Your task to perform on an android device: show emergency info Image 0: 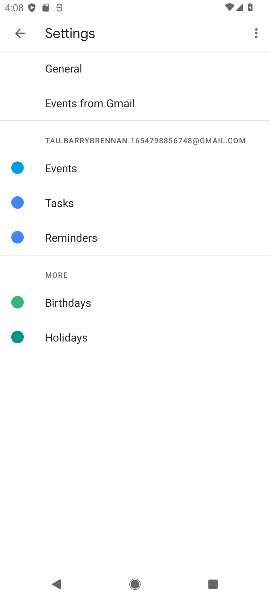
Step 0: press home button
Your task to perform on an android device: show emergency info Image 1: 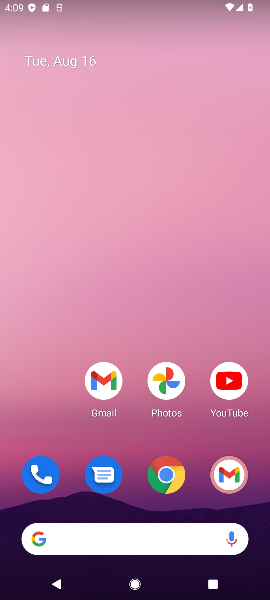
Step 1: drag from (252, 514) to (141, 13)
Your task to perform on an android device: show emergency info Image 2: 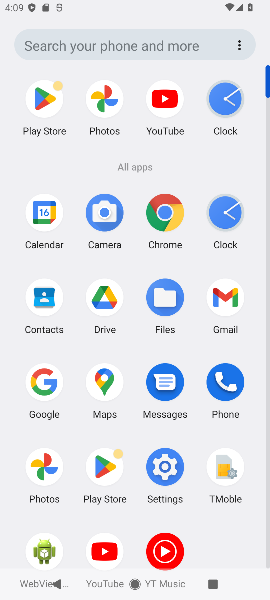
Step 2: click (163, 462)
Your task to perform on an android device: show emergency info Image 3: 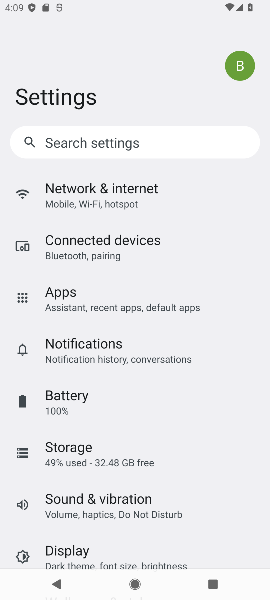
Step 3: drag from (134, 529) to (117, 85)
Your task to perform on an android device: show emergency info Image 4: 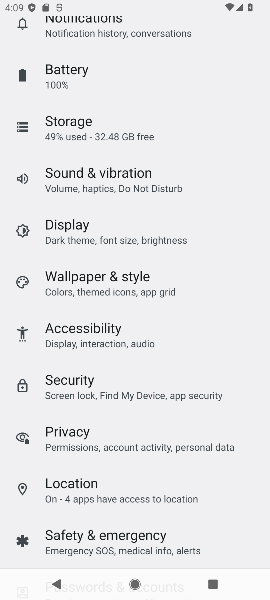
Step 4: drag from (116, 560) to (142, 58)
Your task to perform on an android device: show emergency info Image 5: 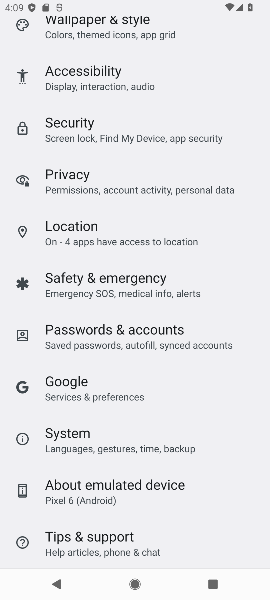
Step 5: drag from (97, 537) to (125, 128)
Your task to perform on an android device: show emergency info Image 6: 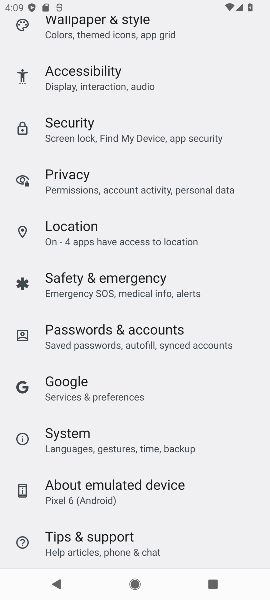
Step 6: click (100, 498)
Your task to perform on an android device: show emergency info Image 7: 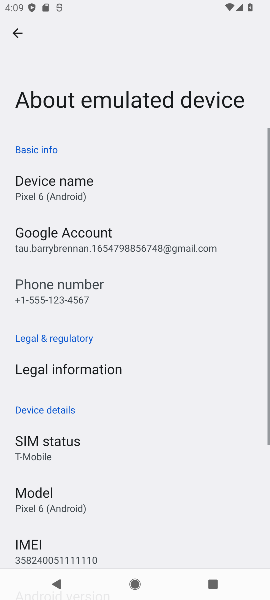
Step 7: task complete